Your task to perform on an android device: Add macbook pro to the cart on target, then select checkout. Image 0: 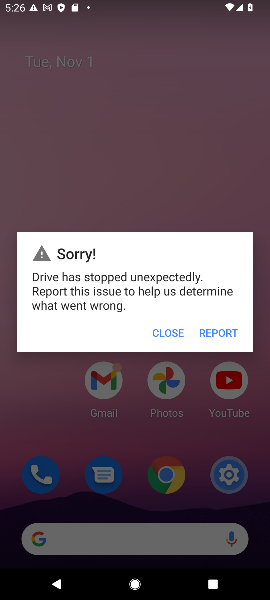
Step 0: press home button
Your task to perform on an android device: Add macbook pro to the cart on target, then select checkout. Image 1: 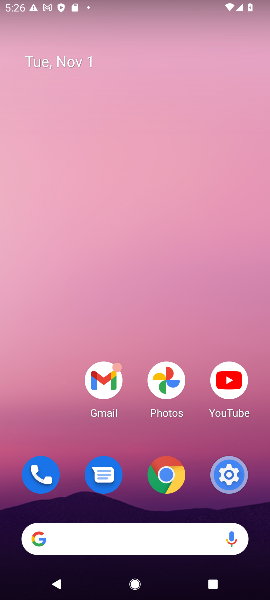
Step 1: click (164, 477)
Your task to perform on an android device: Add macbook pro to the cart on target, then select checkout. Image 2: 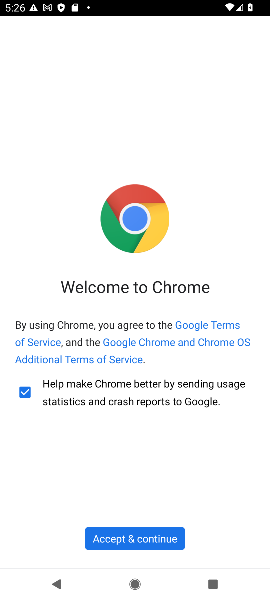
Step 2: click (135, 538)
Your task to perform on an android device: Add macbook pro to the cart on target, then select checkout. Image 3: 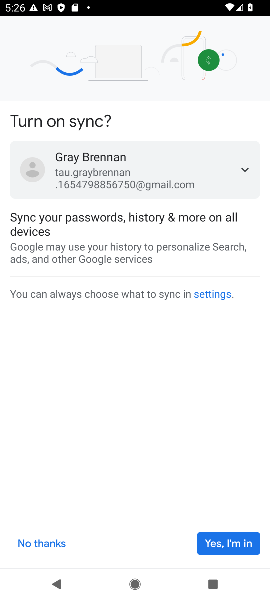
Step 3: click (216, 544)
Your task to perform on an android device: Add macbook pro to the cart on target, then select checkout. Image 4: 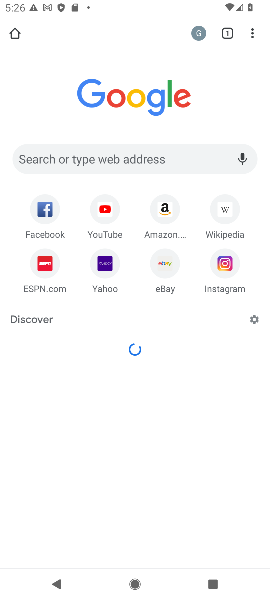
Step 4: click (138, 153)
Your task to perform on an android device: Add macbook pro to the cart on target, then select checkout. Image 5: 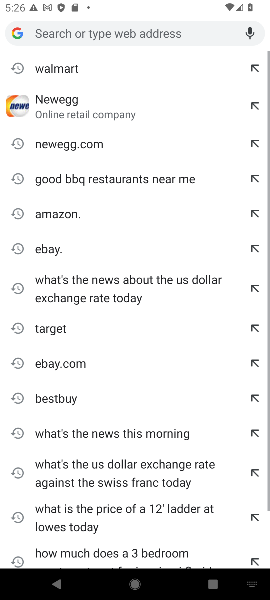
Step 5: type "target"
Your task to perform on an android device: Add macbook pro to the cart on target, then select checkout. Image 6: 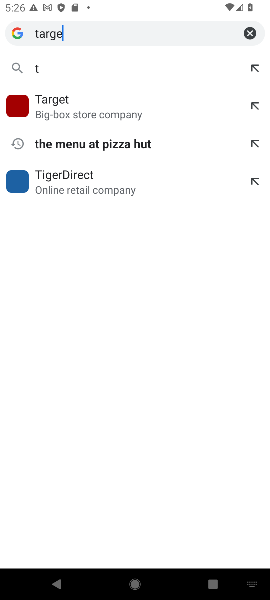
Step 6: press enter
Your task to perform on an android device: Add macbook pro to the cart on target, then select checkout. Image 7: 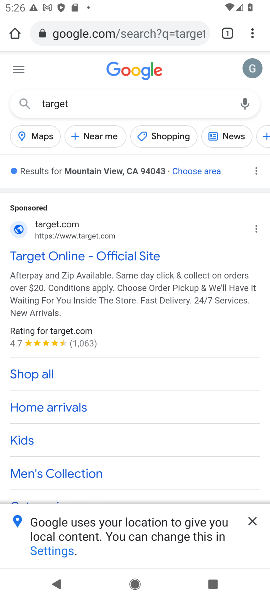
Step 7: click (53, 223)
Your task to perform on an android device: Add macbook pro to the cart on target, then select checkout. Image 8: 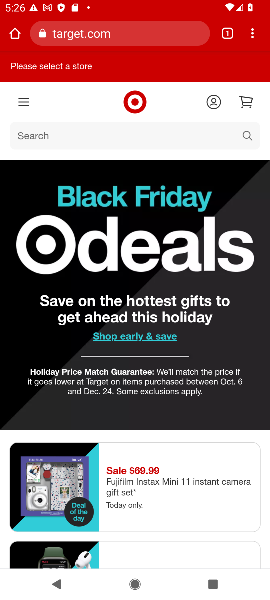
Step 8: click (141, 139)
Your task to perform on an android device: Add macbook pro to the cart on target, then select checkout. Image 9: 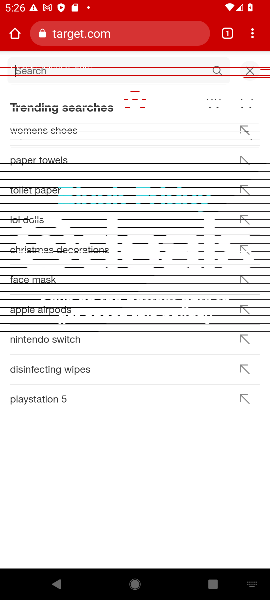
Step 9: type "macbook pro"
Your task to perform on an android device: Add macbook pro to the cart on target, then select checkout. Image 10: 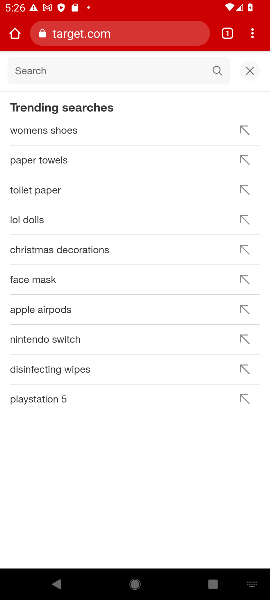
Step 10: press enter
Your task to perform on an android device: Add macbook pro to the cart on target, then select checkout. Image 11: 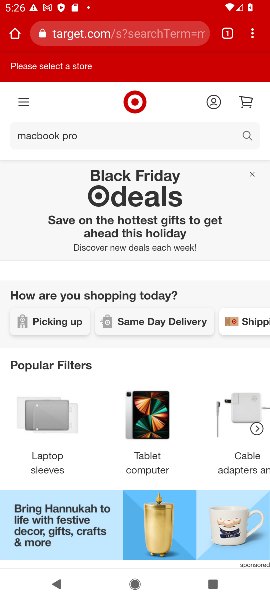
Step 11: drag from (206, 416) to (202, 189)
Your task to perform on an android device: Add macbook pro to the cart on target, then select checkout. Image 12: 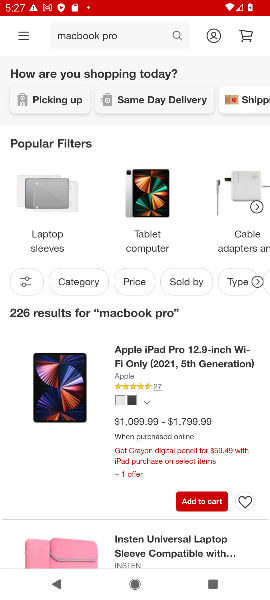
Step 12: drag from (170, 411) to (201, 221)
Your task to perform on an android device: Add macbook pro to the cart on target, then select checkout. Image 13: 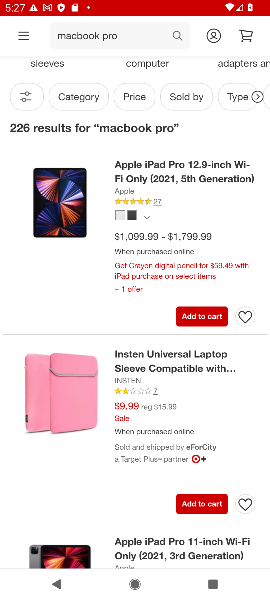
Step 13: drag from (201, 221) to (196, 516)
Your task to perform on an android device: Add macbook pro to the cart on target, then select checkout. Image 14: 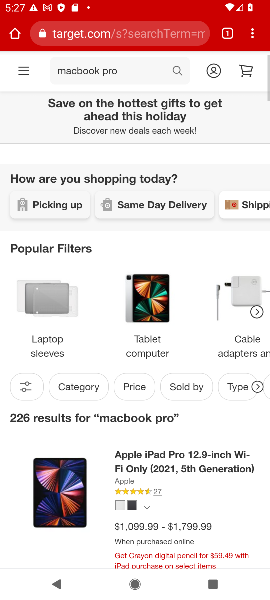
Step 14: drag from (161, 187) to (159, 440)
Your task to perform on an android device: Add macbook pro to the cart on target, then select checkout. Image 15: 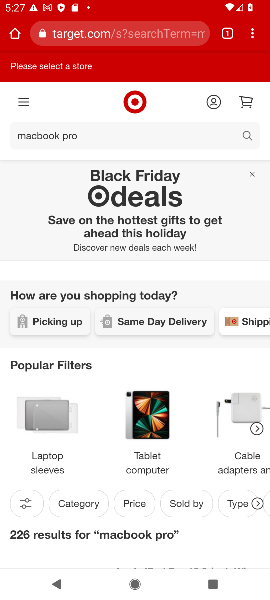
Step 15: drag from (163, 461) to (193, 252)
Your task to perform on an android device: Add macbook pro to the cart on target, then select checkout. Image 16: 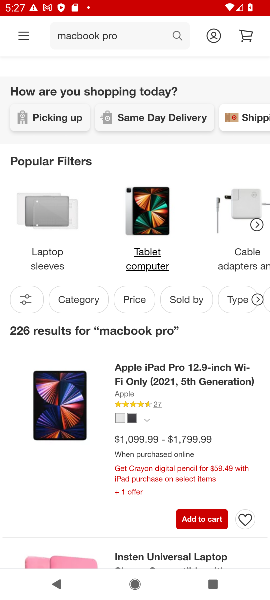
Step 16: drag from (133, 433) to (179, 238)
Your task to perform on an android device: Add macbook pro to the cart on target, then select checkout. Image 17: 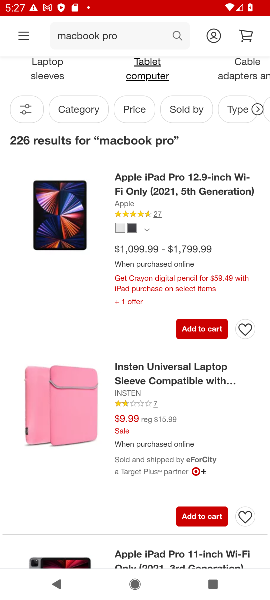
Step 17: drag from (179, 332) to (184, 289)
Your task to perform on an android device: Add macbook pro to the cart on target, then select checkout. Image 18: 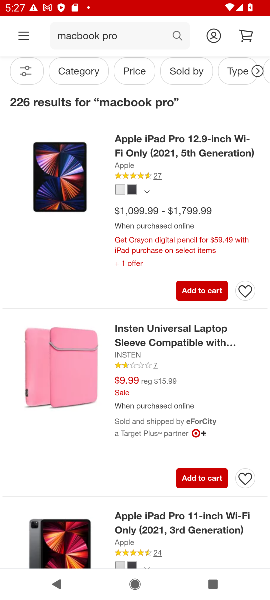
Step 18: click (48, 180)
Your task to perform on an android device: Add macbook pro to the cart on target, then select checkout. Image 19: 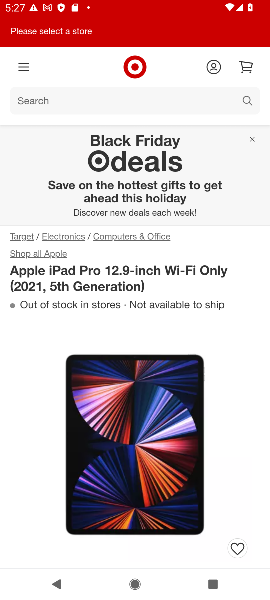
Step 19: task complete